Your task to perform on an android device: toggle notification dots Image 0: 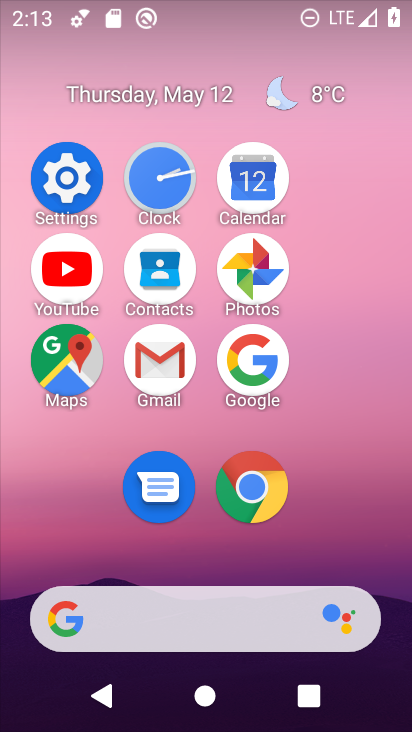
Step 0: click (85, 174)
Your task to perform on an android device: toggle notification dots Image 1: 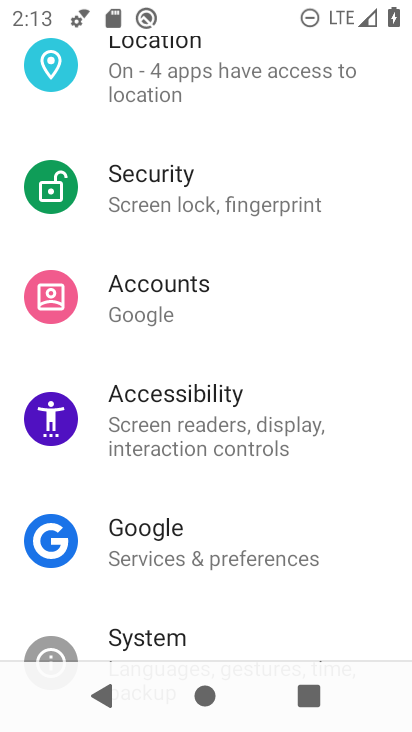
Step 1: drag from (285, 201) to (347, 597)
Your task to perform on an android device: toggle notification dots Image 2: 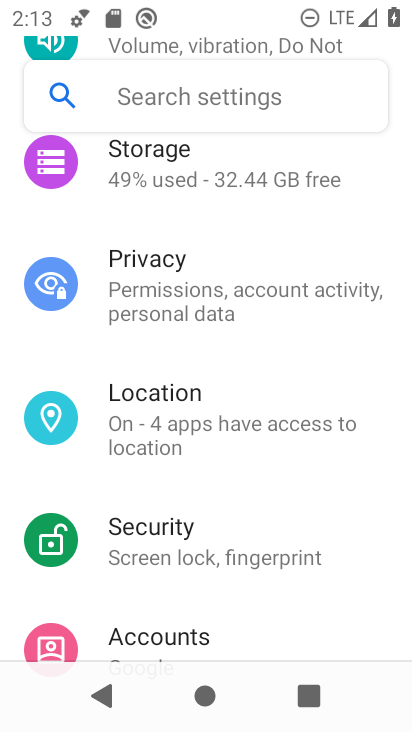
Step 2: drag from (291, 160) to (330, 557)
Your task to perform on an android device: toggle notification dots Image 3: 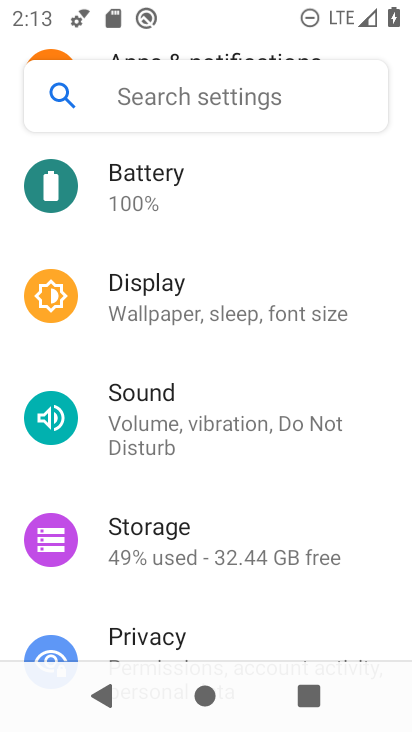
Step 3: drag from (307, 213) to (333, 489)
Your task to perform on an android device: toggle notification dots Image 4: 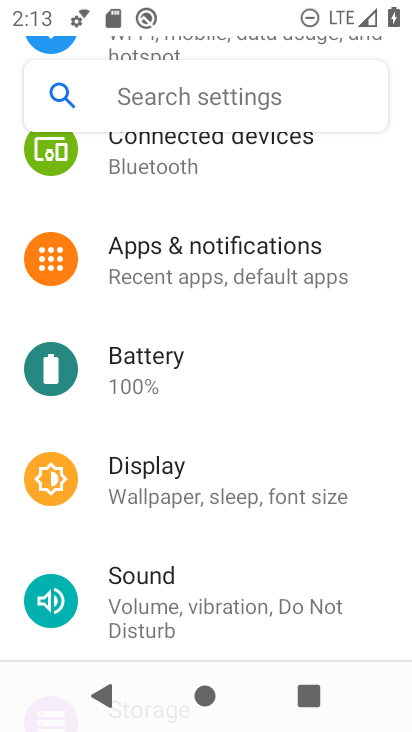
Step 4: click (226, 284)
Your task to perform on an android device: toggle notification dots Image 5: 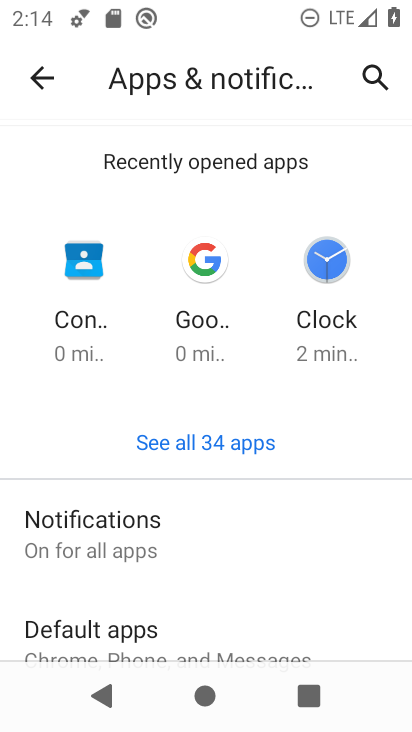
Step 5: click (83, 520)
Your task to perform on an android device: toggle notification dots Image 6: 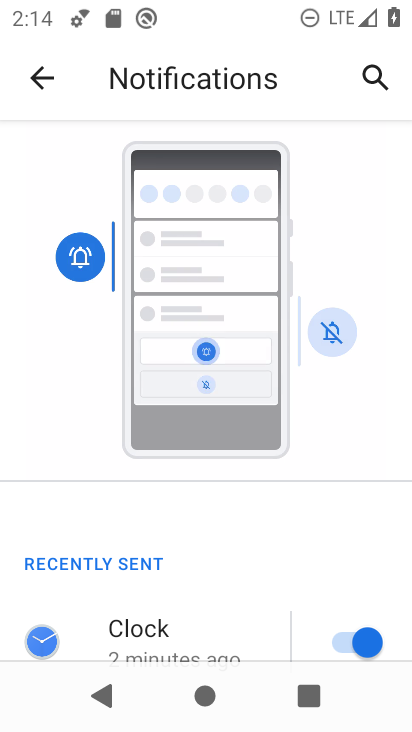
Step 6: drag from (222, 605) to (287, 81)
Your task to perform on an android device: toggle notification dots Image 7: 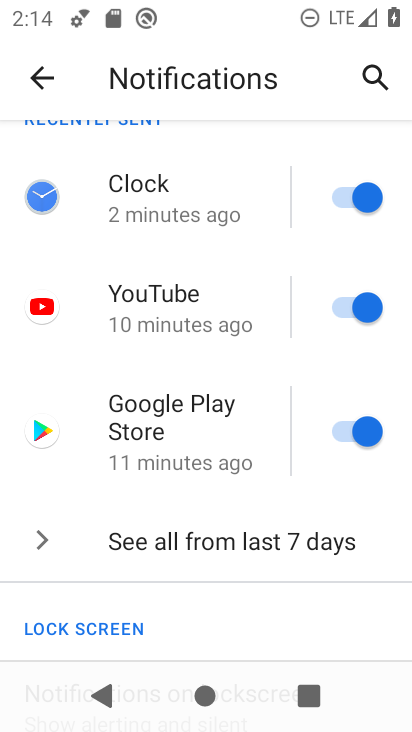
Step 7: drag from (205, 607) to (224, 96)
Your task to perform on an android device: toggle notification dots Image 8: 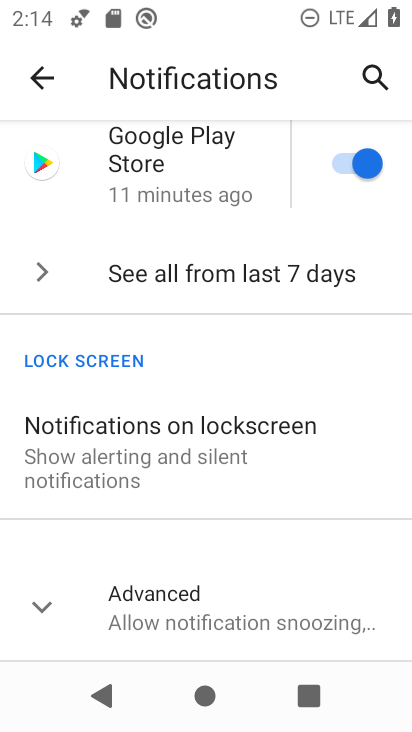
Step 8: click (218, 596)
Your task to perform on an android device: toggle notification dots Image 9: 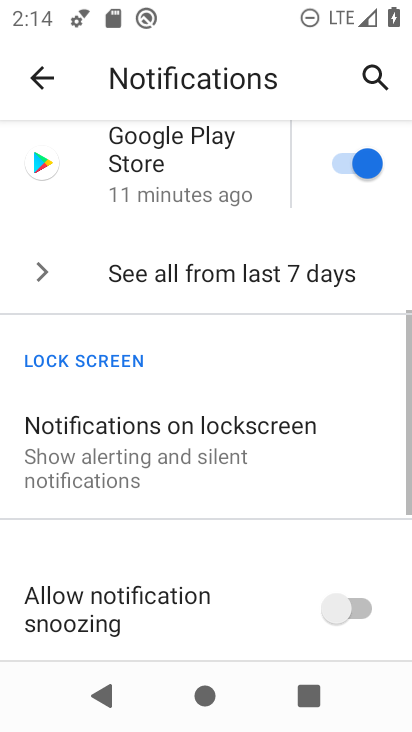
Step 9: drag from (212, 591) to (207, 122)
Your task to perform on an android device: toggle notification dots Image 10: 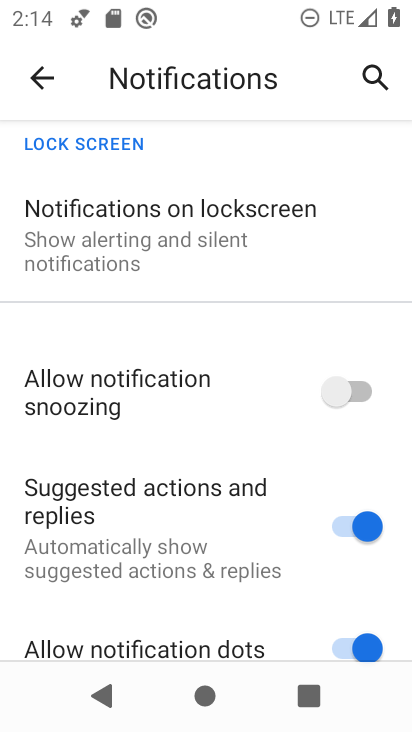
Step 10: click (364, 640)
Your task to perform on an android device: toggle notification dots Image 11: 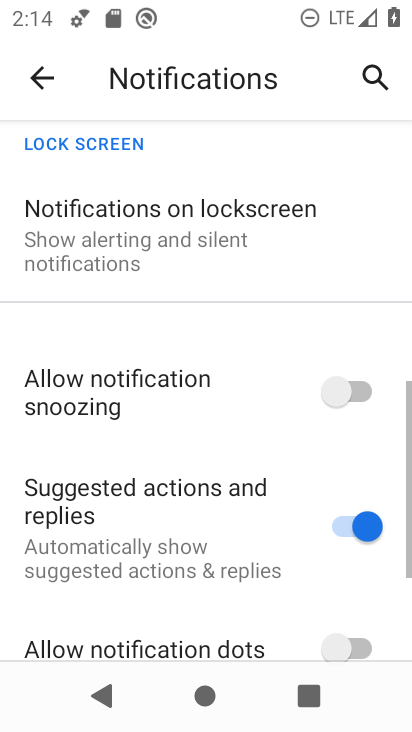
Step 11: task complete